Your task to perform on an android device: read, delete, or share a saved page in the chrome app Image 0: 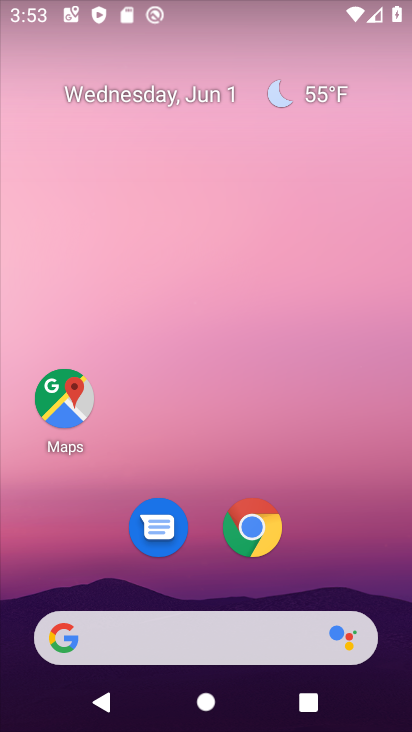
Step 0: click (253, 526)
Your task to perform on an android device: read, delete, or share a saved page in the chrome app Image 1: 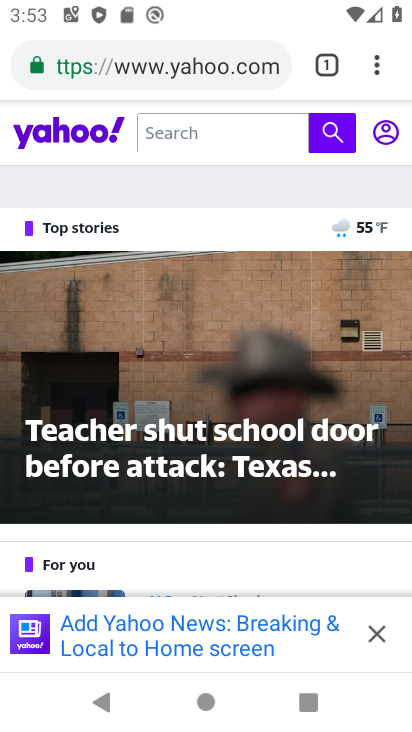
Step 1: drag from (193, 560) to (222, 159)
Your task to perform on an android device: read, delete, or share a saved page in the chrome app Image 2: 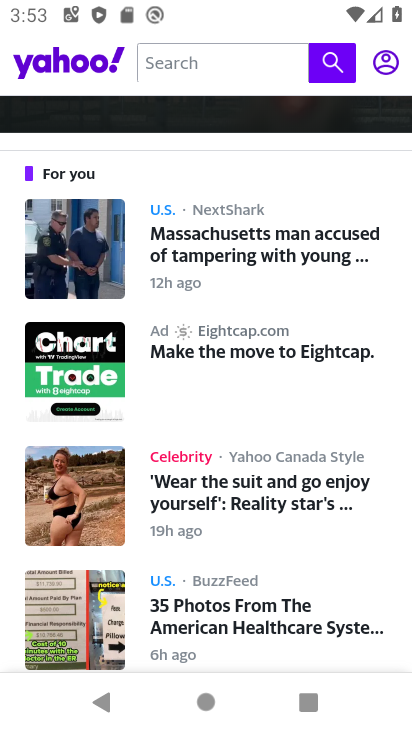
Step 2: drag from (239, 576) to (283, 238)
Your task to perform on an android device: read, delete, or share a saved page in the chrome app Image 3: 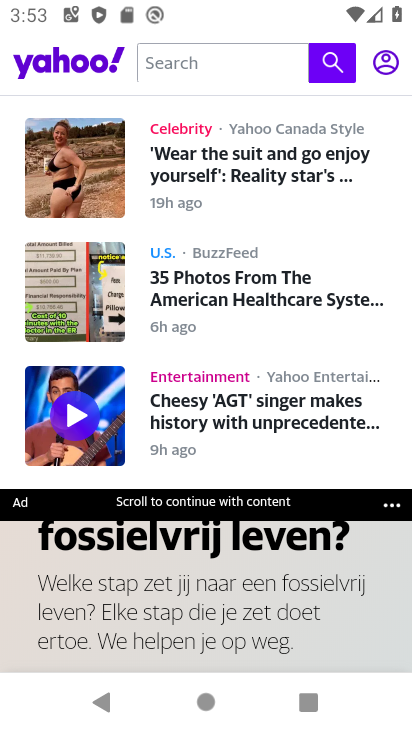
Step 3: drag from (283, 248) to (257, 635)
Your task to perform on an android device: read, delete, or share a saved page in the chrome app Image 4: 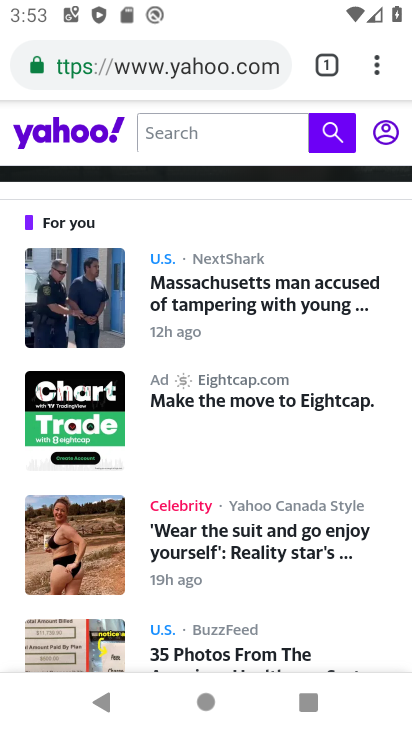
Step 4: drag from (279, 235) to (255, 631)
Your task to perform on an android device: read, delete, or share a saved page in the chrome app Image 5: 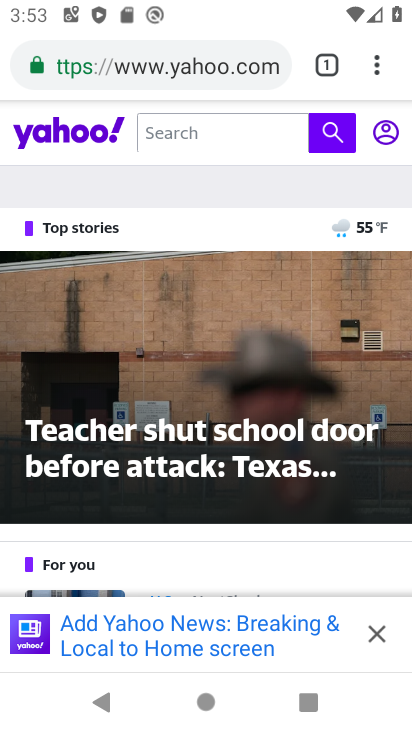
Step 5: drag from (380, 61) to (178, 74)
Your task to perform on an android device: read, delete, or share a saved page in the chrome app Image 6: 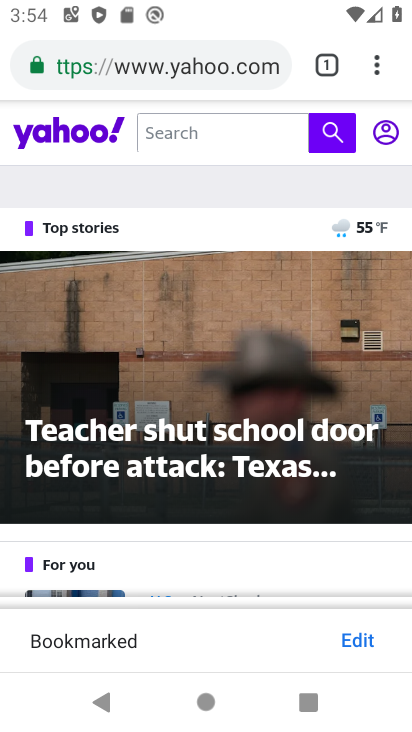
Step 6: drag from (368, 64) to (171, 64)
Your task to perform on an android device: read, delete, or share a saved page in the chrome app Image 7: 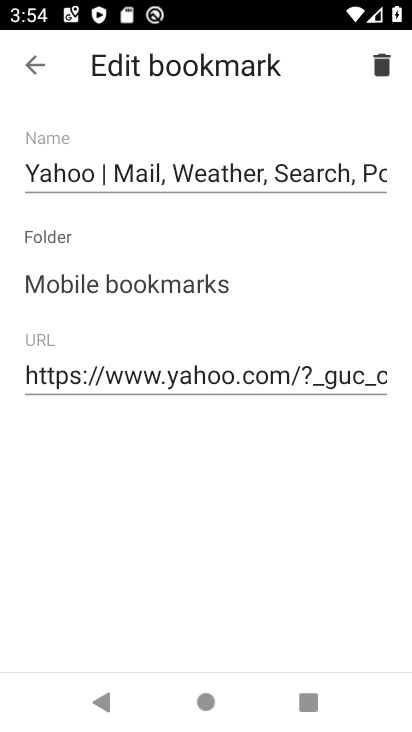
Step 7: click (386, 63)
Your task to perform on an android device: read, delete, or share a saved page in the chrome app Image 8: 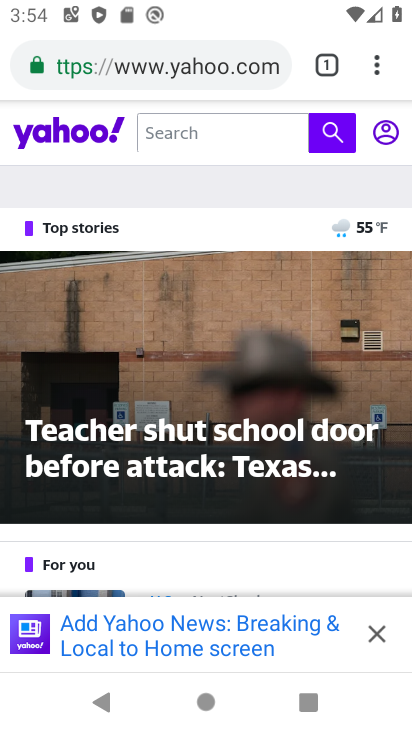
Step 8: task complete